Your task to perform on an android device: Search for a nightstand on IKEA. Image 0: 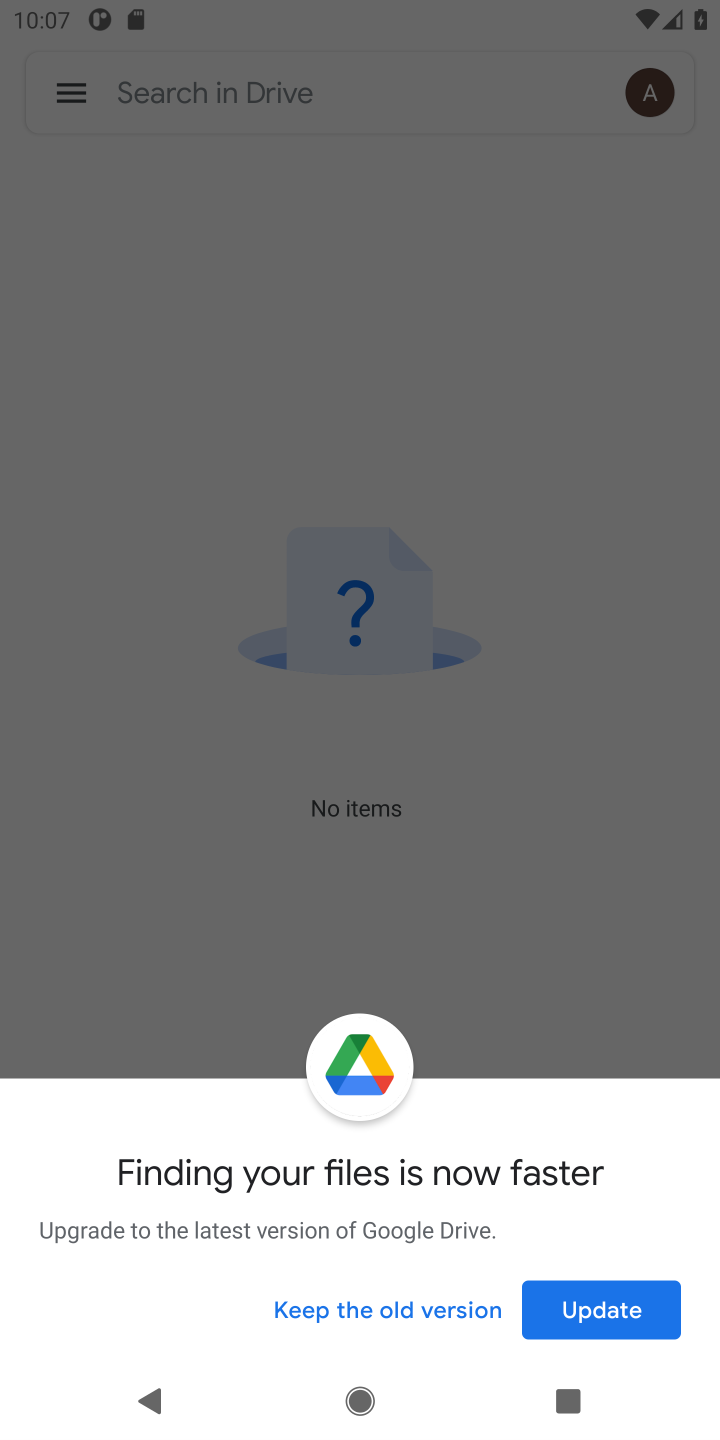
Step 0: press home button
Your task to perform on an android device: Search for a nightstand on IKEA. Image 1: 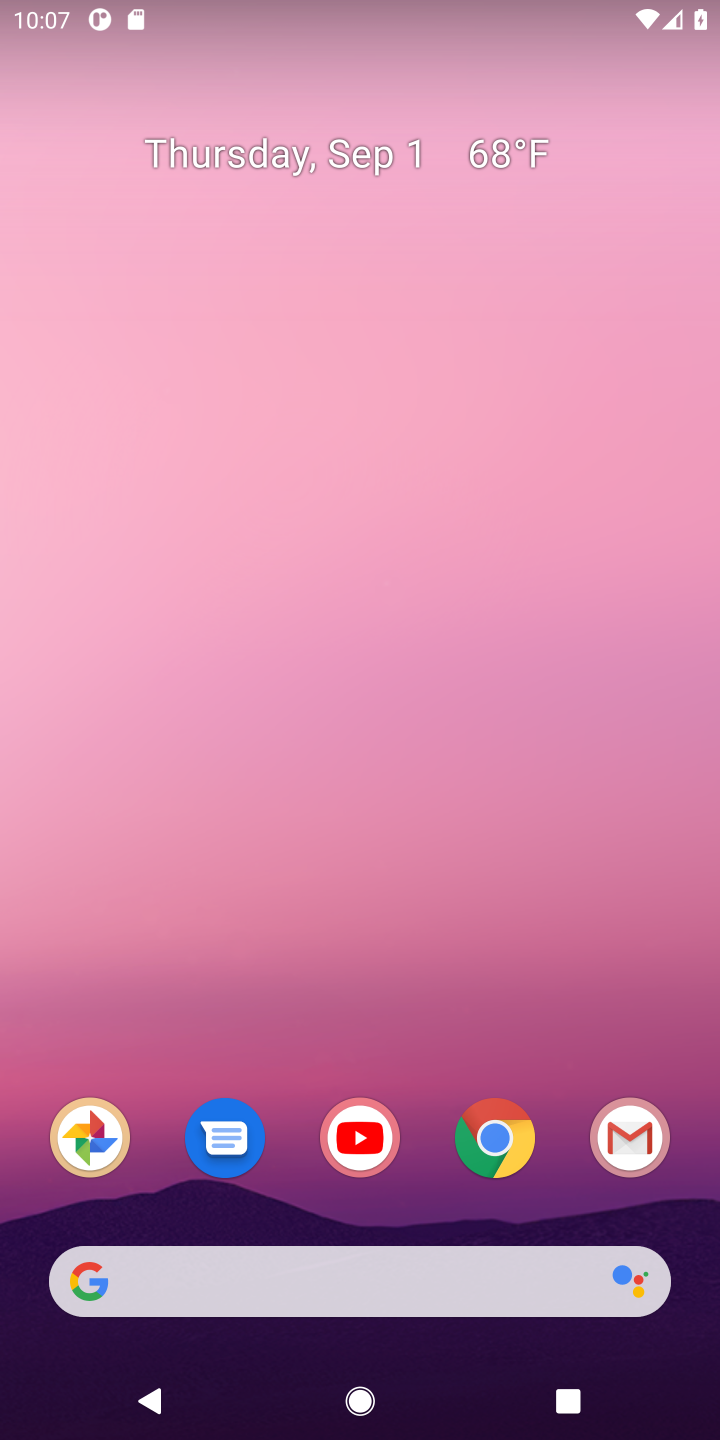
Step 1: click (341, 1290)
Your task to perform on an android device: Search for a nightstand on IKEA. Image 2: 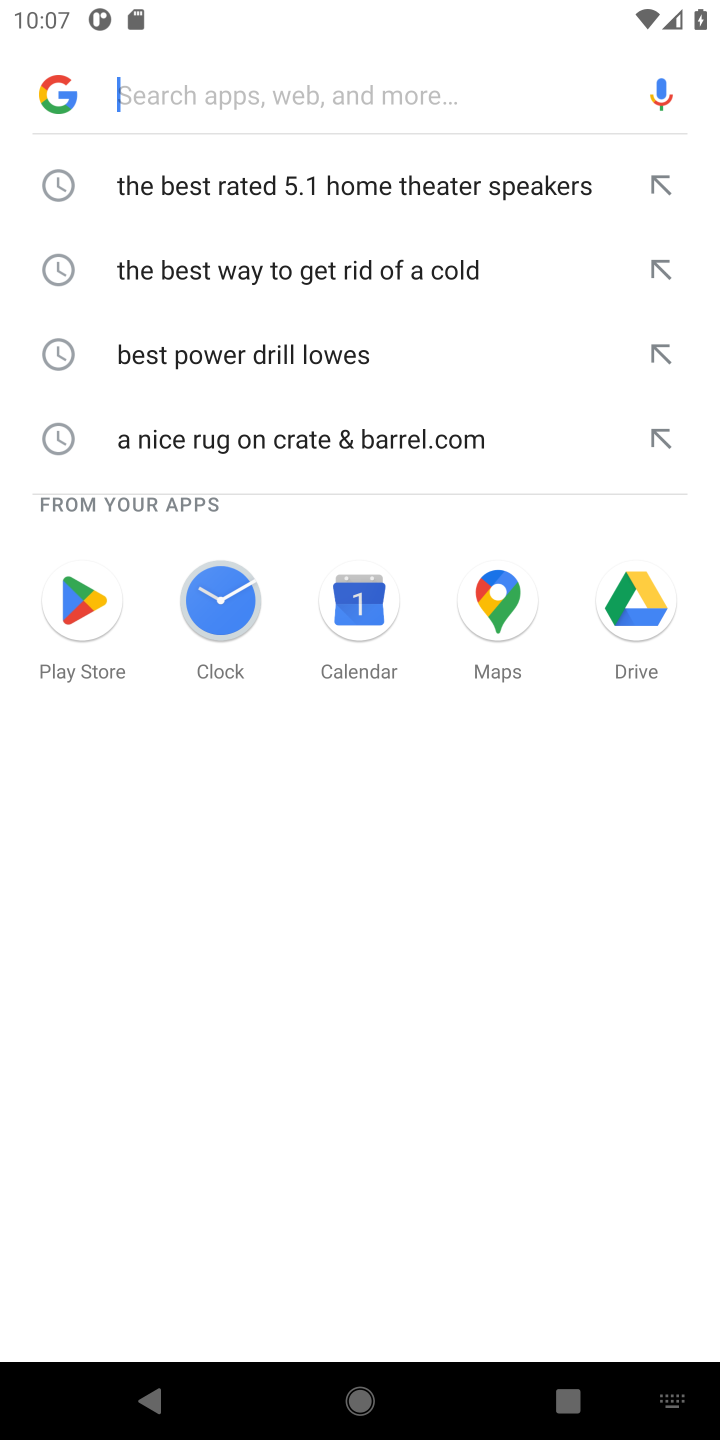
Step 2: type "a nightstand on IKEA"
Your task to perform on an android device: Search for a nightstand on IKEA. Image 3: 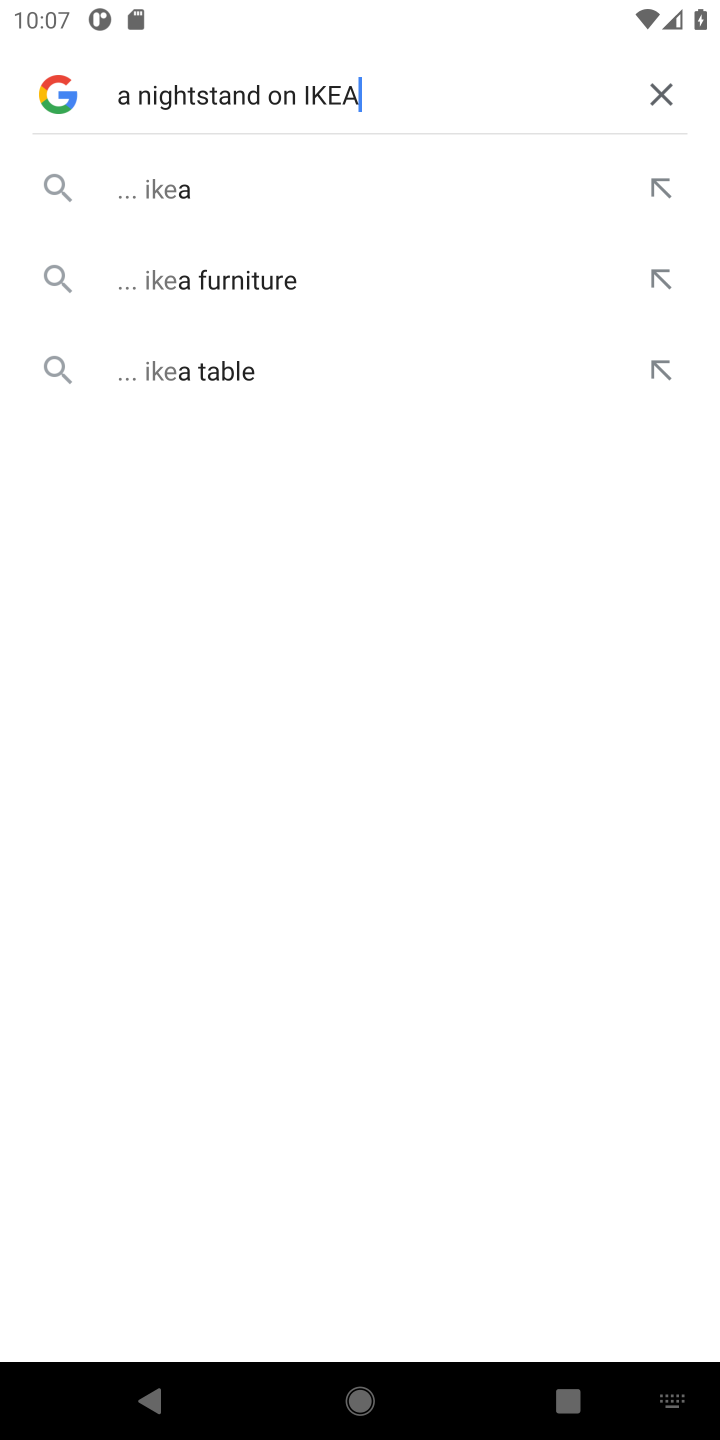
Step 3: click (150, 182)
Your task to perform on an android device: Search for a nightstand on IKEA. Image 4: 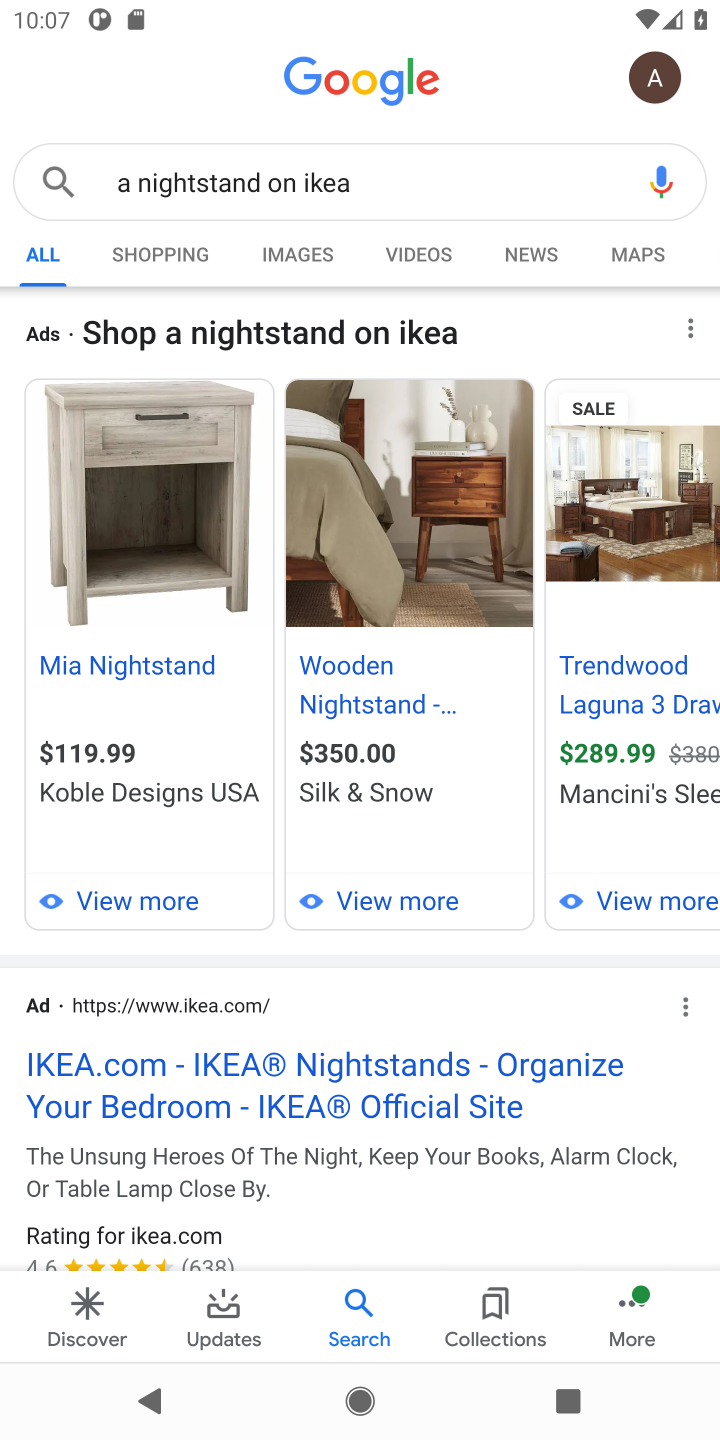
Step 4: task complete